Your task to perform on an android device: add a contact Image 0: 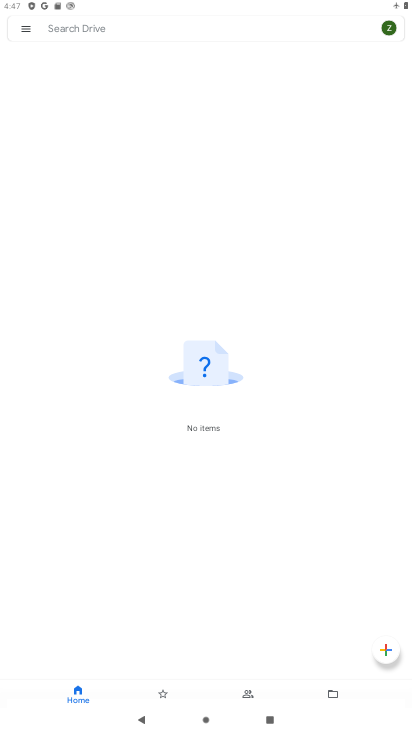
Step 0: press home button
Your task to perform on an android device: add a contact Image 1: 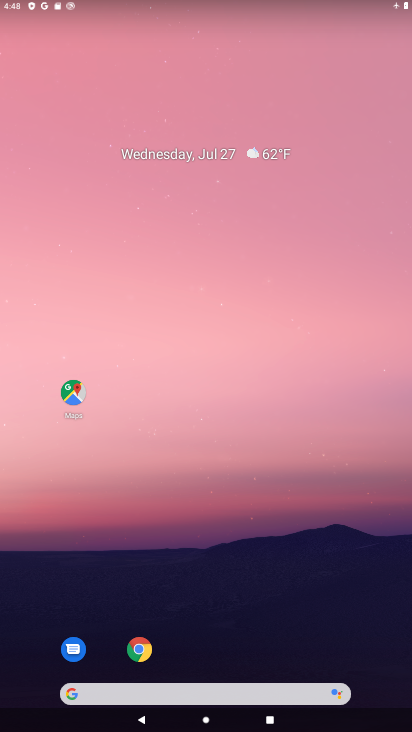
Step 1: drag from (267, 534) to (280, 165)
Your task to perform on an android device: add a contact Image 2: 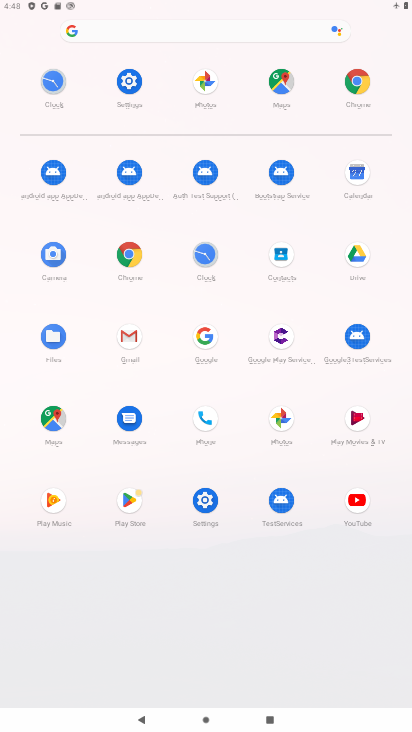
Step 2: click (279, 258)
Your task to perform on an android device: add a contact Image 3: 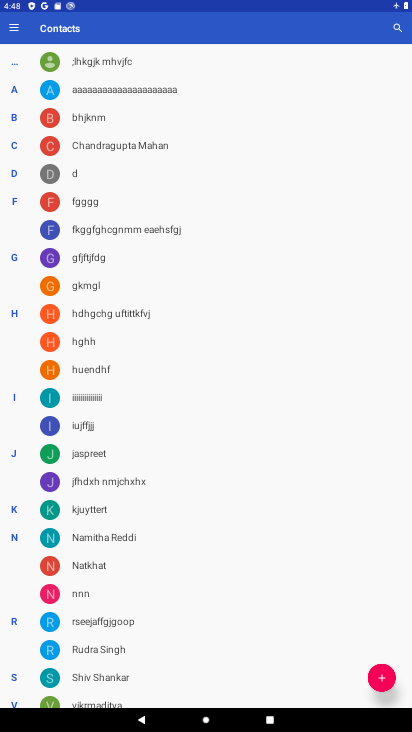
Step 3: click (384, 672)
Your task to perform on an android device: add a contact Image 4: 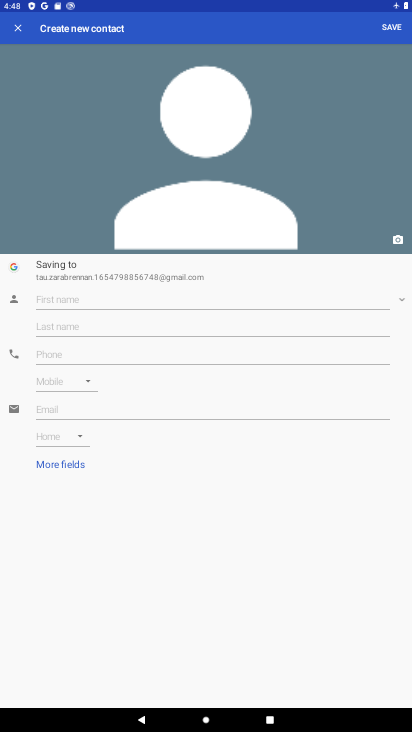
Step 4: click (128, 305)
Your task to perform on an android device: add a contact Image 5: 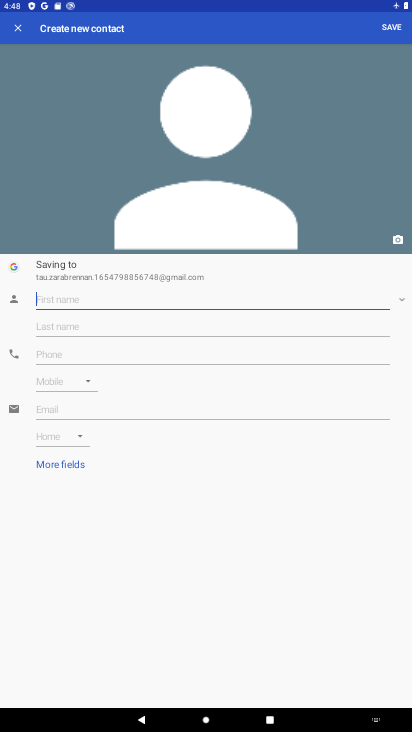
Step 5: type "xcvcxv"
Your task to perform on an android device: add a contact Image 6: 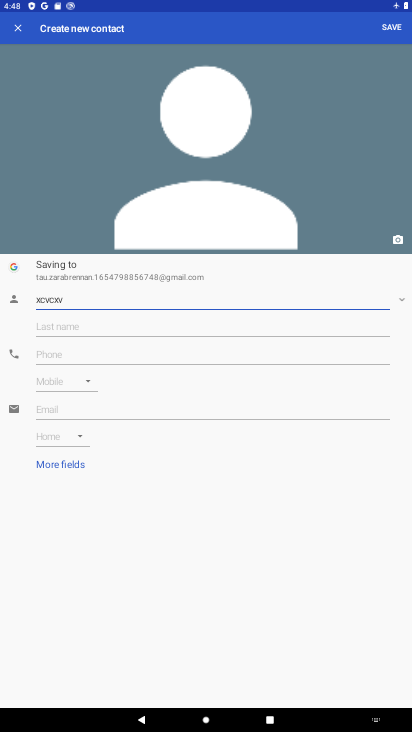
Step 6: press enter
Your task to perform on an android device: add a contact Image 7: 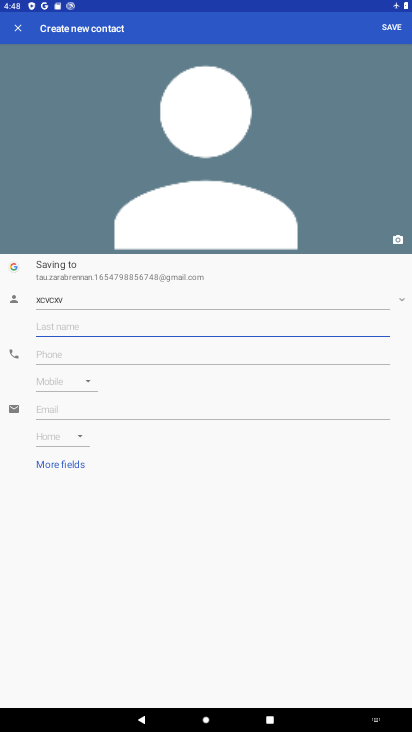
Step 7: click (321, 358)
Your task to perform on an android device: add a contact Image 8: 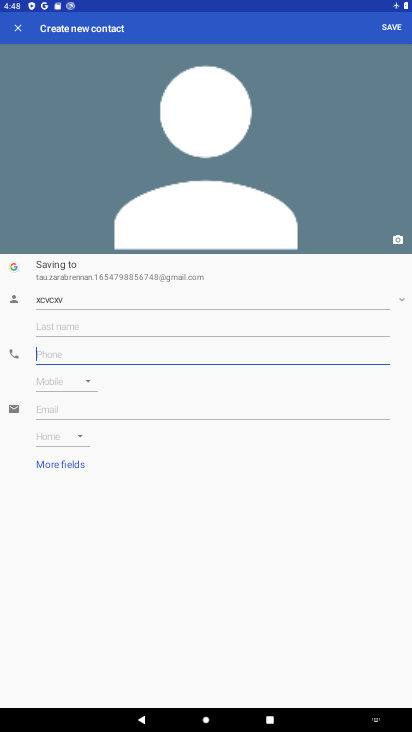
Step 8: type "67545342"
Your task to perform on an android device: add a contact Image 9: 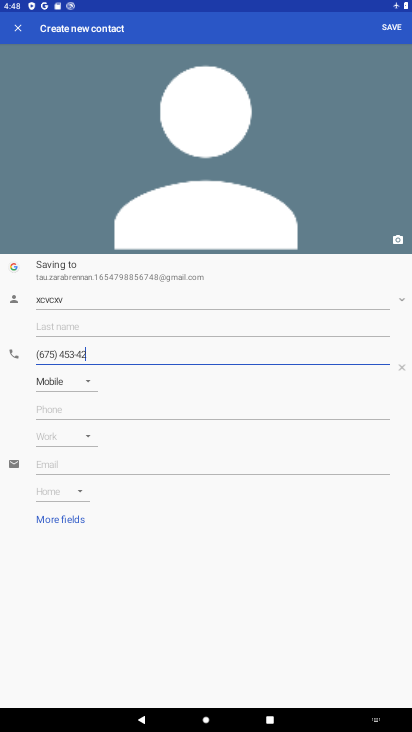
Step 9: press enter
Your task to perform on an android device: add a contact Image 10: 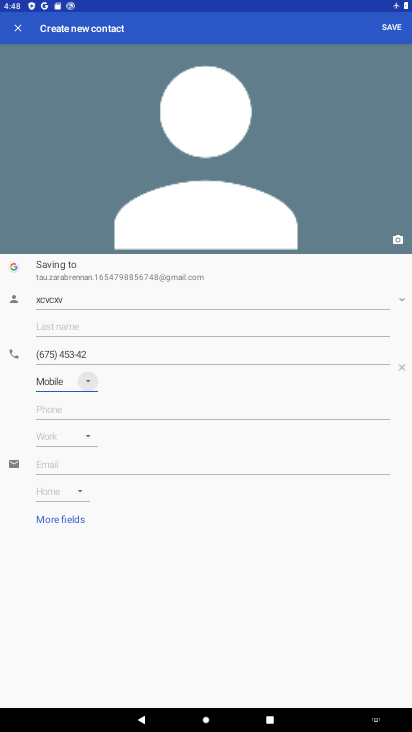
Step 10: click (391, 26)
Your task to perform on an android device: add a contact Image 11: 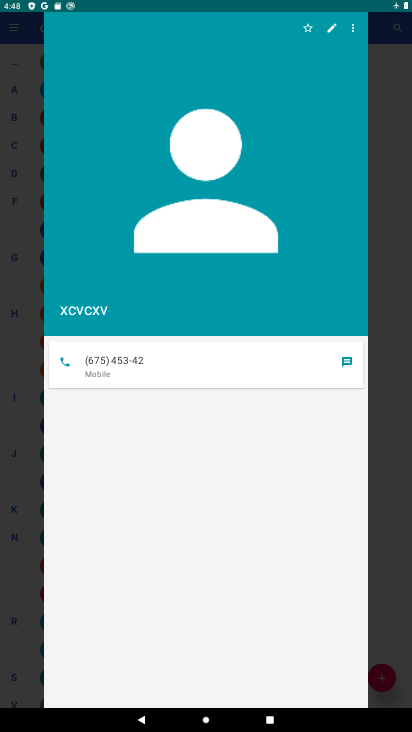
Step 11: task complete